Your task to perform on an android device: Search for sony triple a on walmart.com, select the first entry, add it to the cart, then select checkout. Image 0: 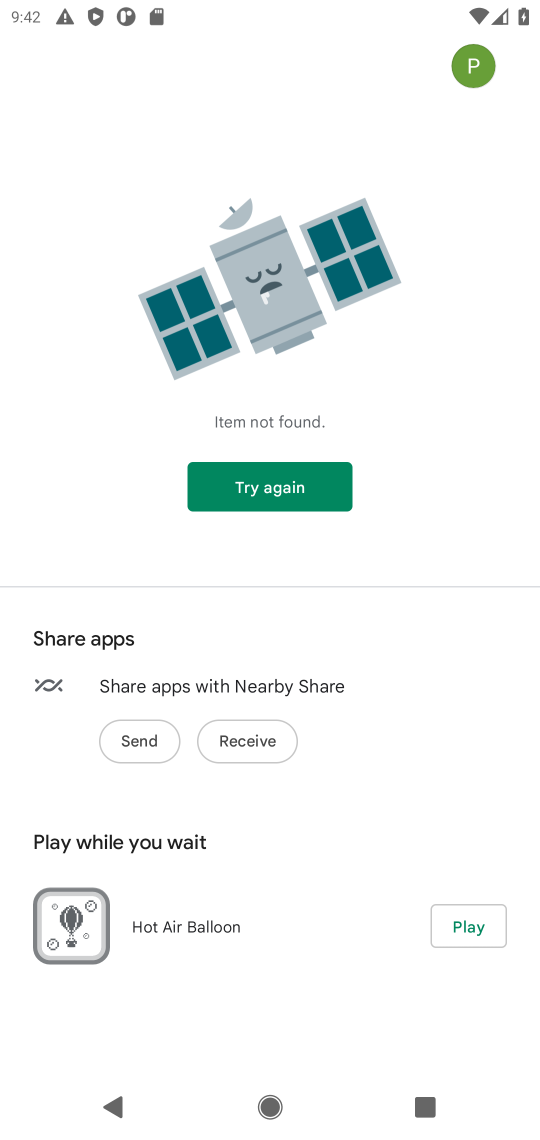
Step 0: press home button
Your task to perform on an android device: Search for sony triple a on walmart.com, select the first entry, add it to the cart, then select checkout. Image 1: 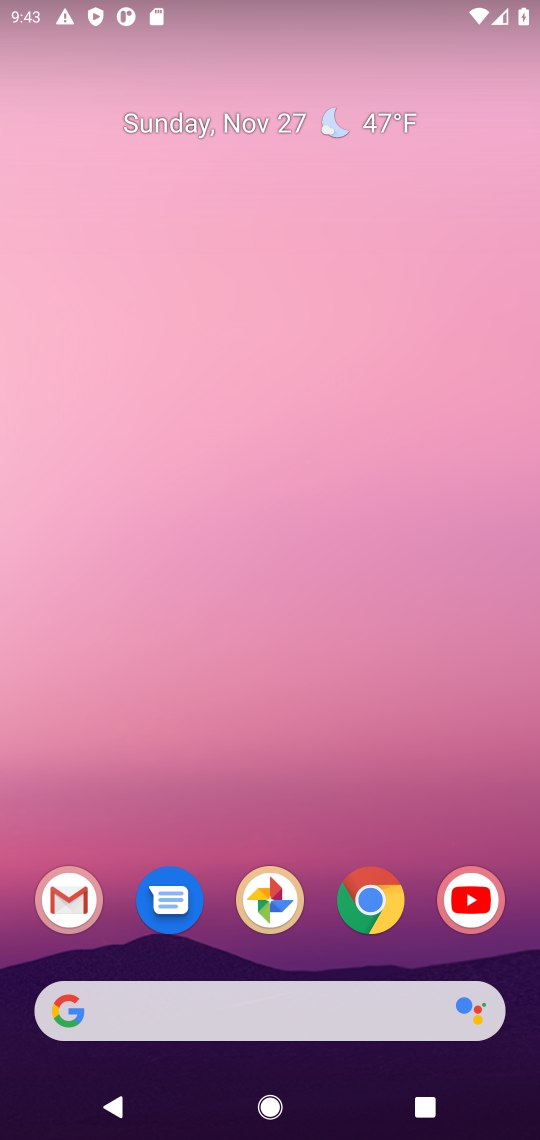
Step 1: click (376, 894)
Your task to perform on an android device: Search for sony triple a on walmart.com, select the first entry, add it to the cart, then select checkout. Image 2: 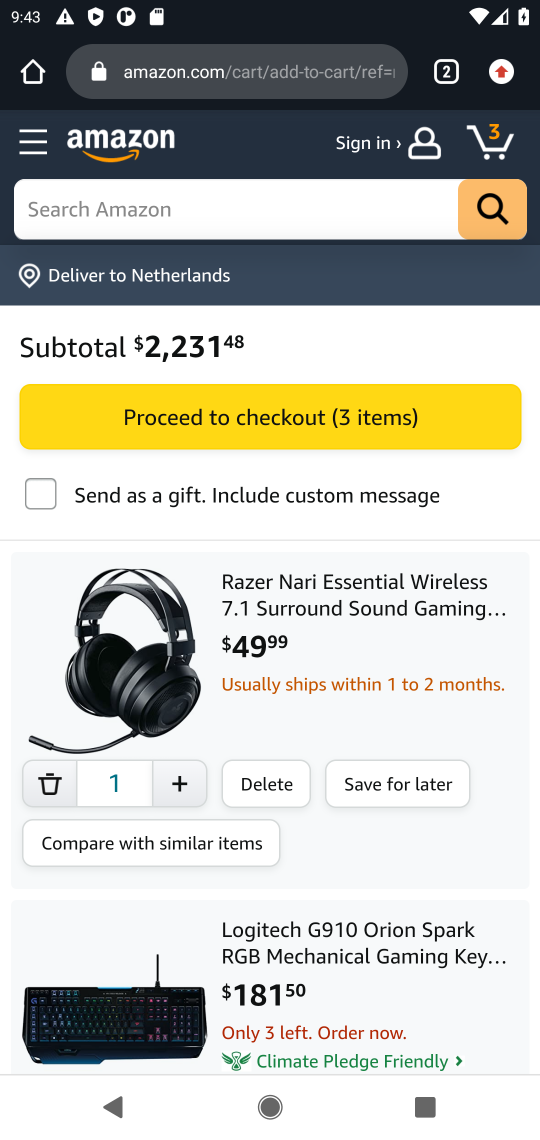
Step 2: click (224, 68)
Your task to perform on an android device: Search for sony triple a on walmart.com, select the first entry, add it to the cart, then select checkout. Image 3: 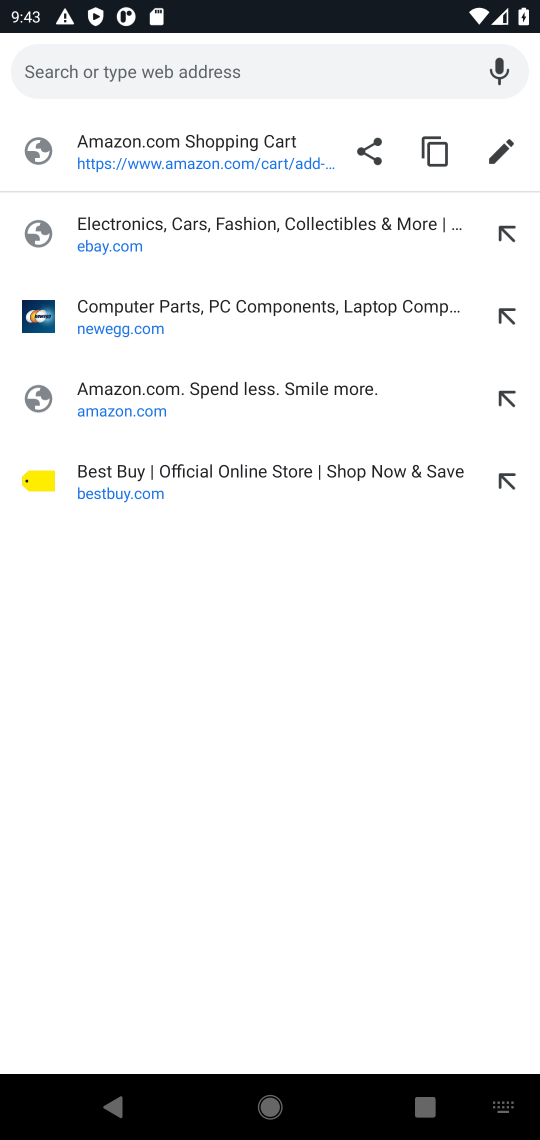
Step 3: type "walmart.com"
Your task to perform on an android device: Search for sony triple a on walmart.com, select the first entry, add it to the cart, then select checkout. Image 4: 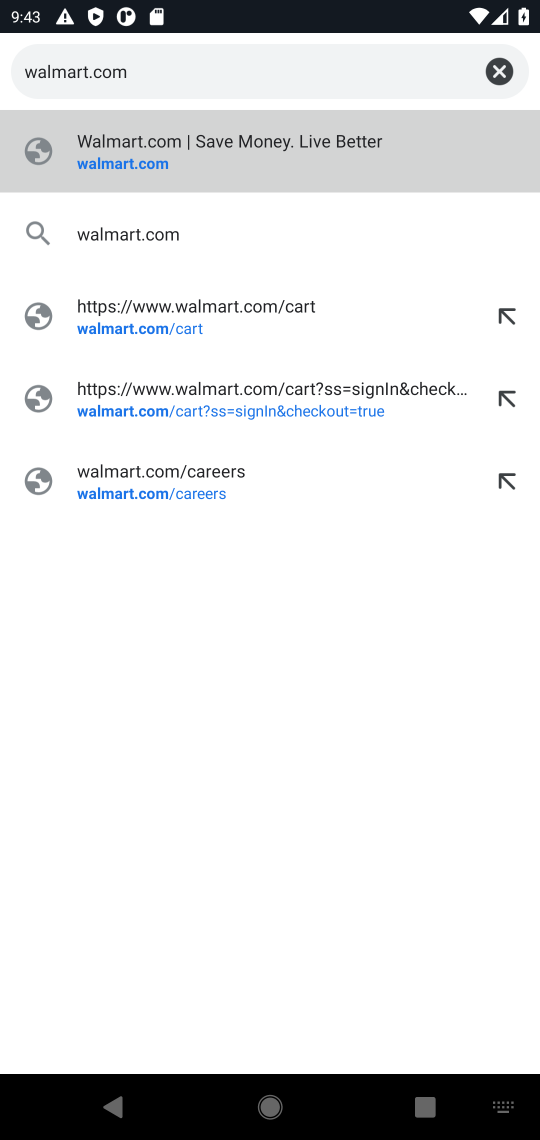
Step 4: click (119, 154)
Your task to perform on an android device: Search for sony triple a on walmart.com, select the first entry, add it to the cart, then select checkout. Image 5: 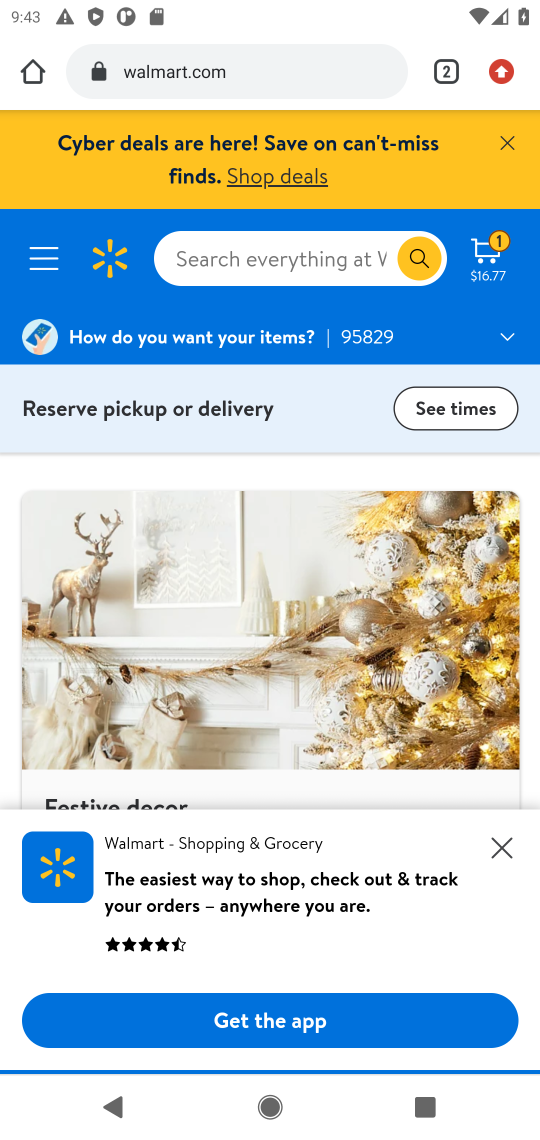
Step 5: click (255, 249)
Your task to perform on an android device: Search for sony triple a on walmart.com, select the first entry, add it to the cart, then select checkout. Image 6: 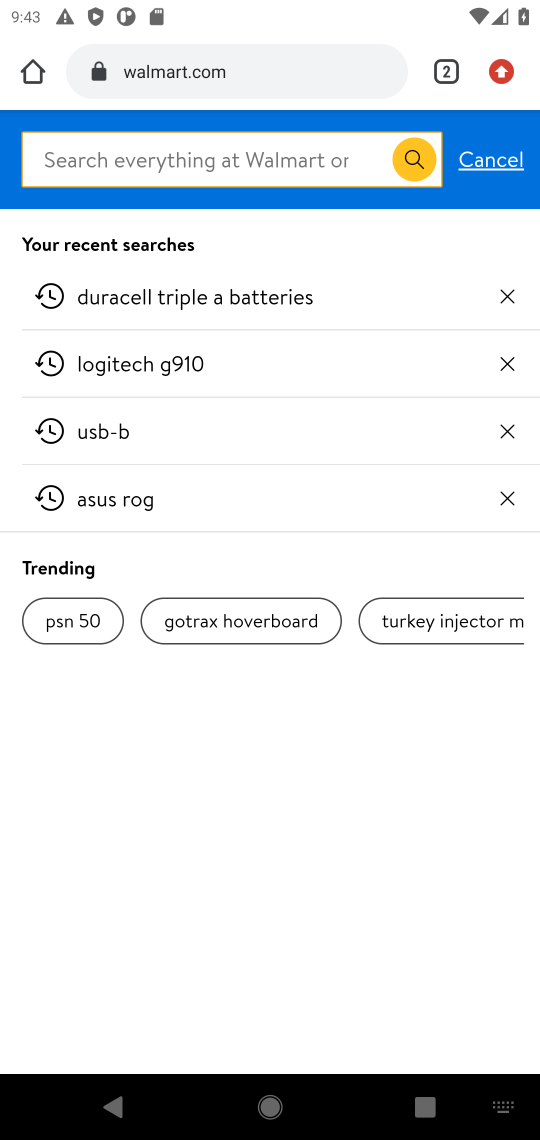
Step 6: type "sony triple a"
Your task to perform on an android device: Search for sony triple a on walmart.com, select the first entry, add it to the cart, then select checkout. Image 7: 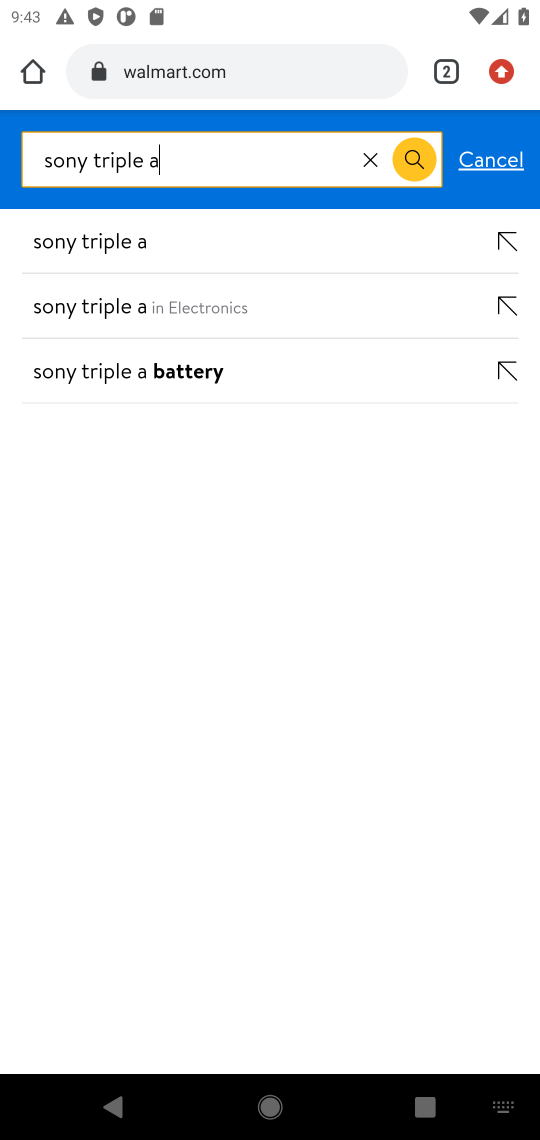
Step 7: click (84, 234)
Your task to perform on an android device: Search for sony triple a on walmart.com, select the first entry, add it to the cart, then select checkout. Image 8: 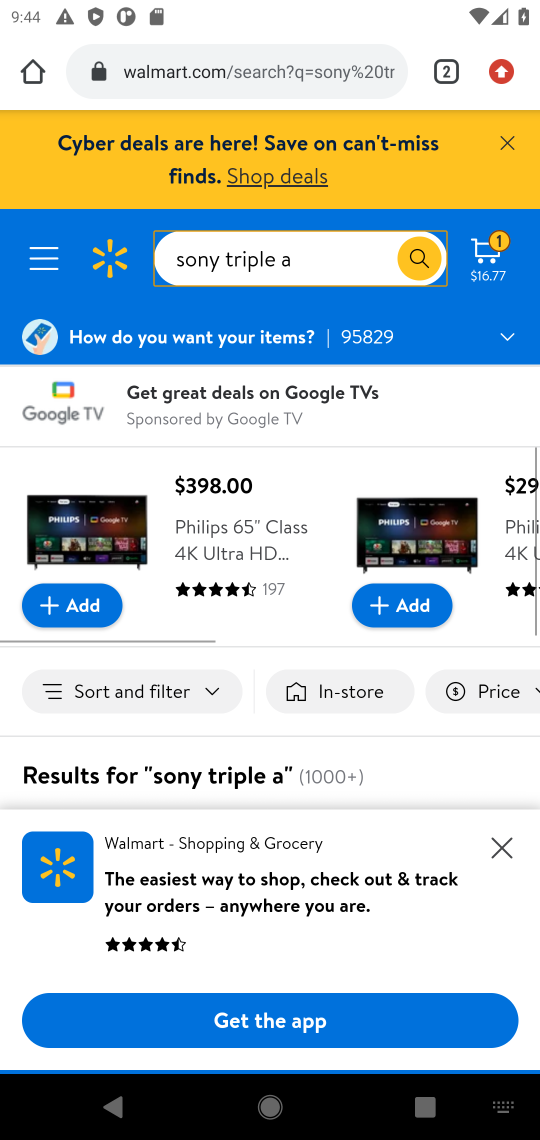
Step 8: click (506, 838)
Your task to perform on an android device: Search for sony triple a on walmart.com, select the first entry, add it to the cart, then select checkout. Image 9: 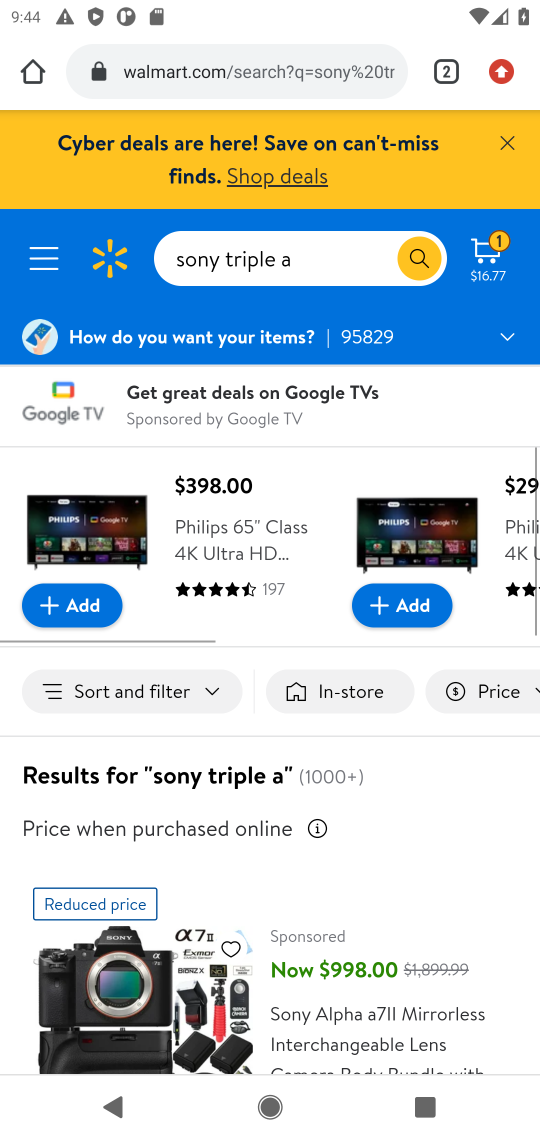
Step 9: task complete